Your task to perform on an android device: Find coffee shops on Maps Image 0: 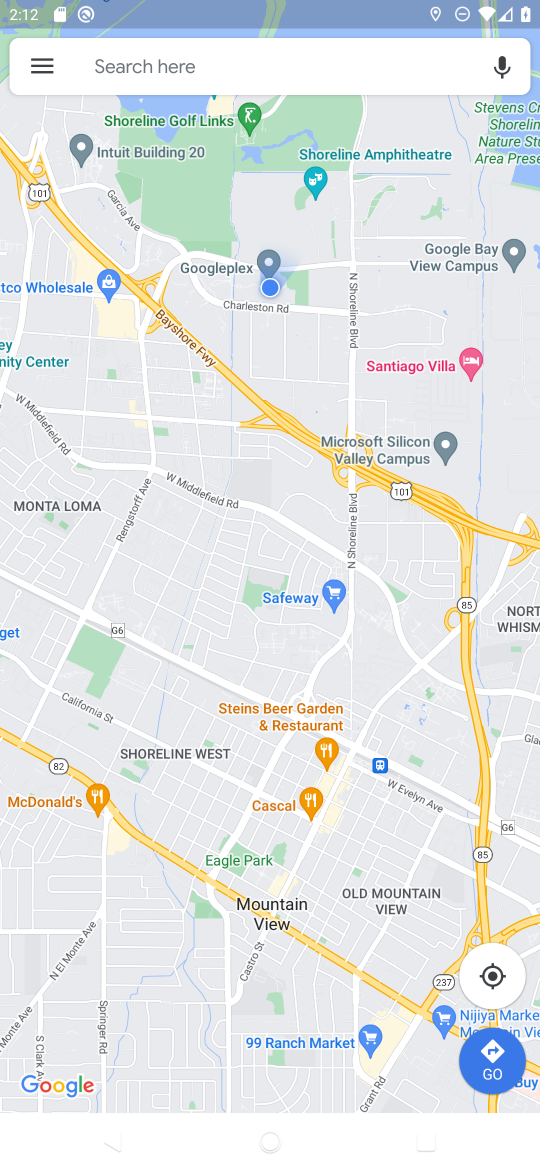
Step 0: press home button
Your task to perform on an android device: Find coffee shops on Maps Image 1: 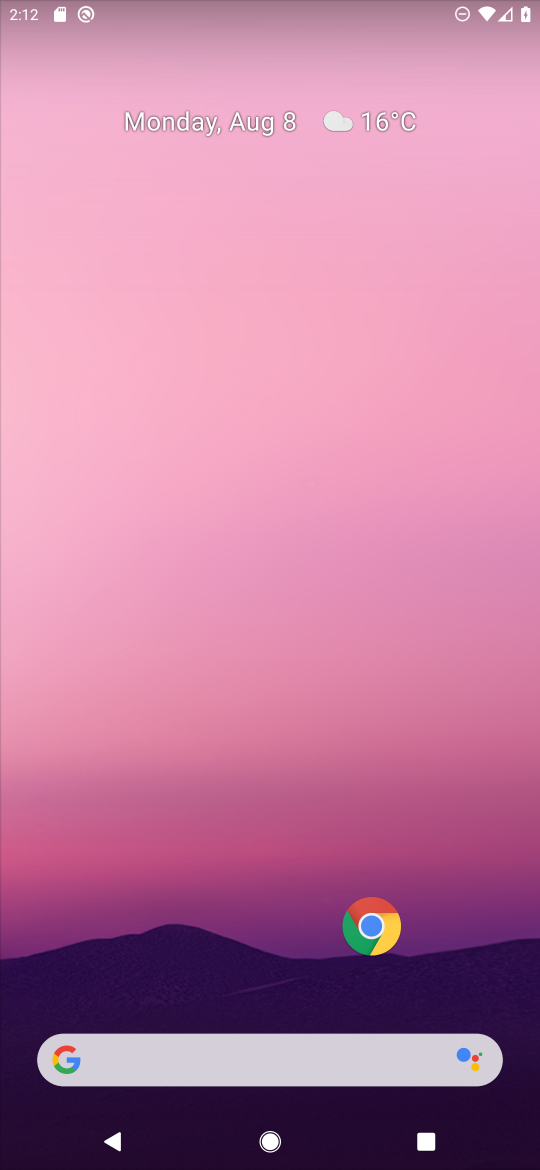
Step 1: drag from (133, 980) to (199, 292)
Your task to perform on an android device: Find coffee shops on Maps Image 2: 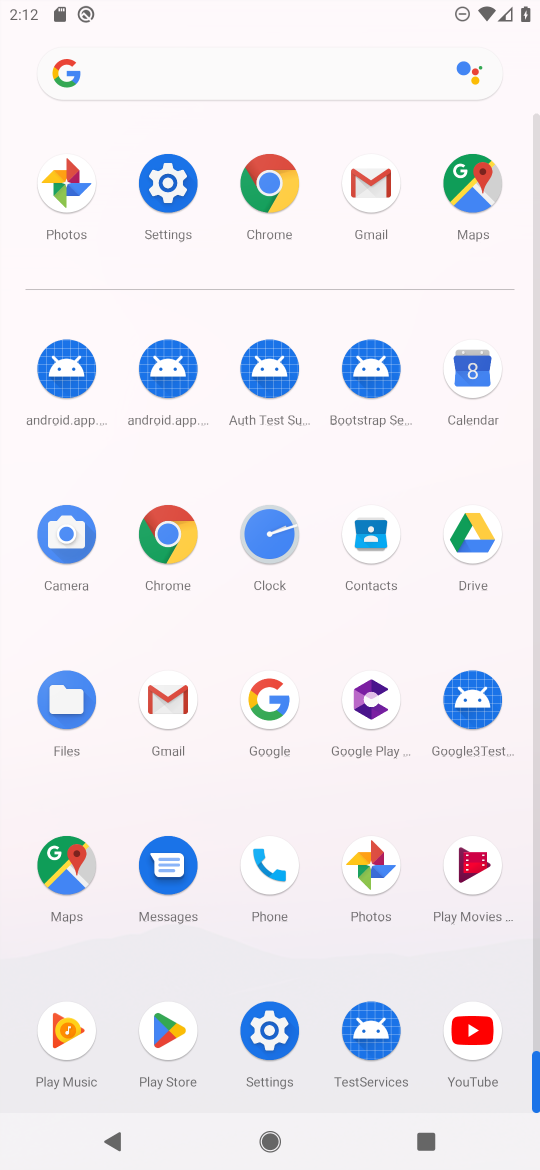
Step 2: click (365, 194)
Your task to perform on an android device: Find coffee shops on Maps Image 3: 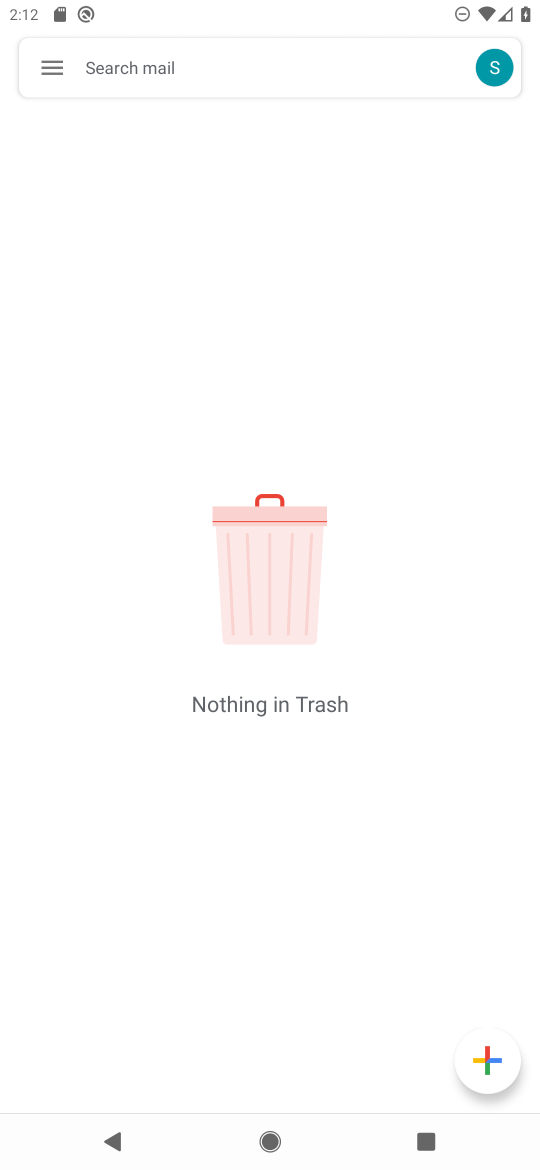
Step 3: press home button
Your task to perform on an android device: Find coffee shops on Maps Image 4: 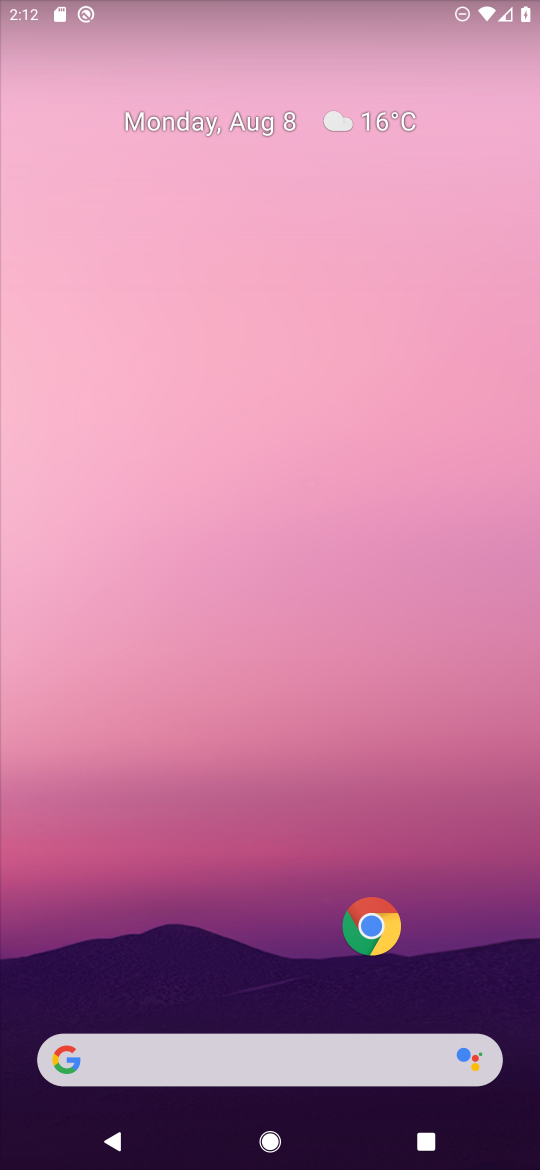
Step 4: drag from (175, 952) to (263, 131)
Your task to perform on an android device: Find coffee shops on Maps Image 5: 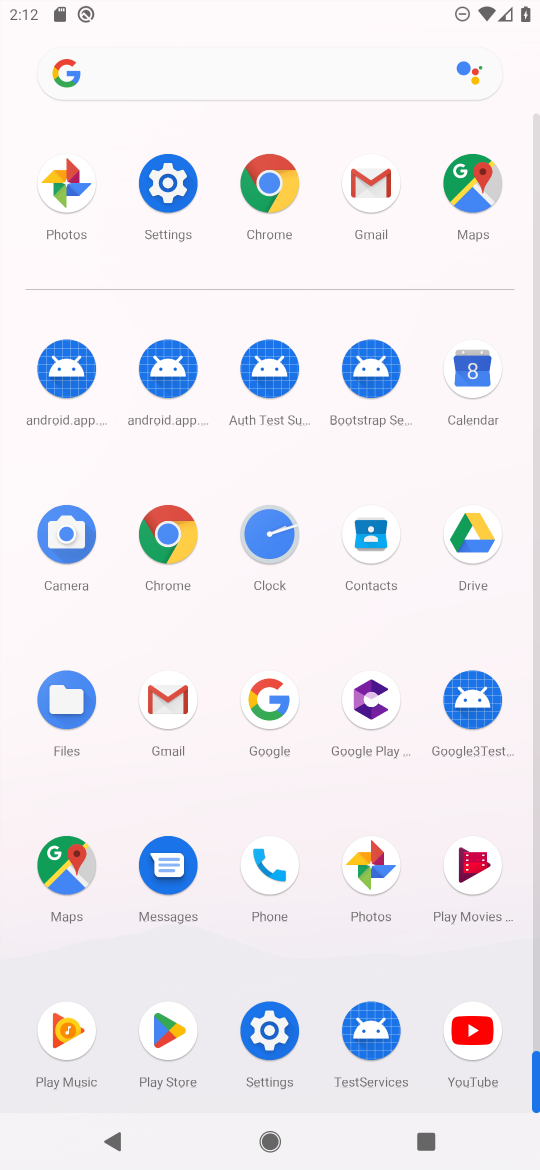
Step 5: click (460, 183)
Your task to perform on an android device: Find coffee shops on Maps Image 6: 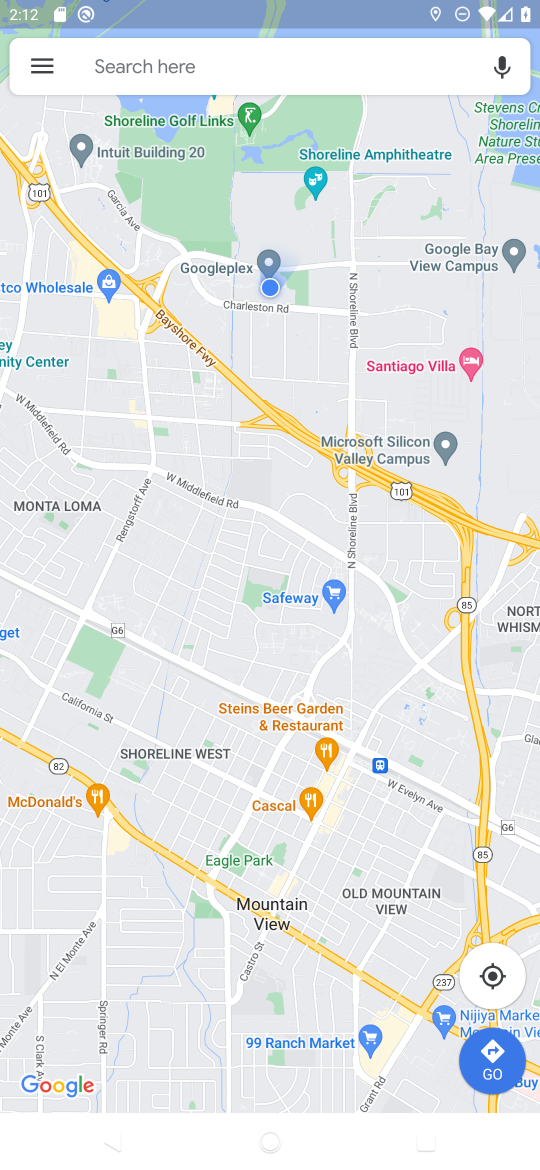
Step 6: click (152, 62)
Your task to perform on an android device: Find coffee shops on Maps Image 7: 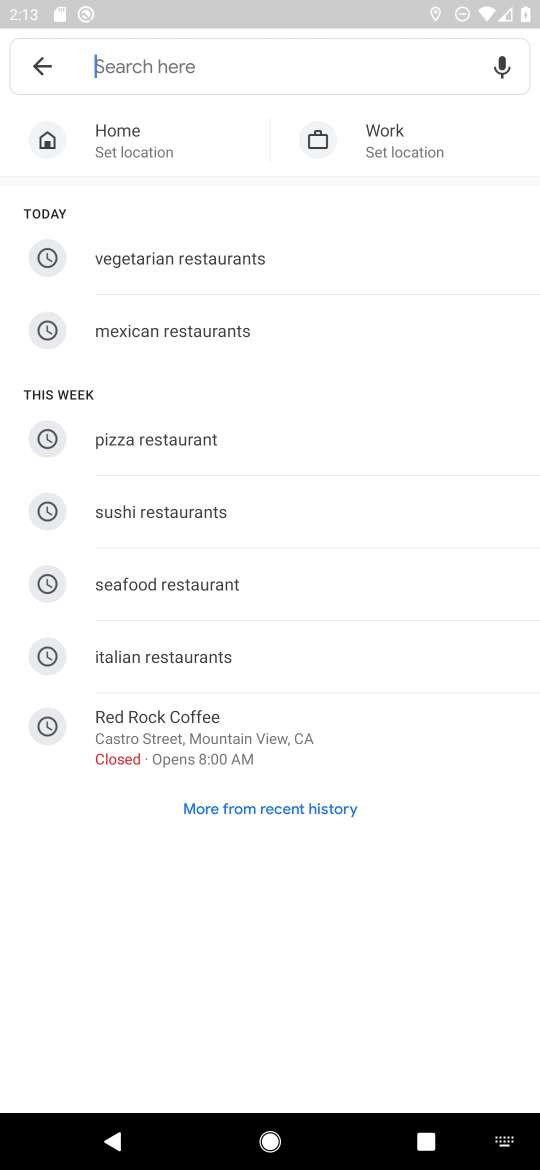
Step 7: click (262, 46)
Your task to perform on an android device: Find coffee shops on Maps Image 8: 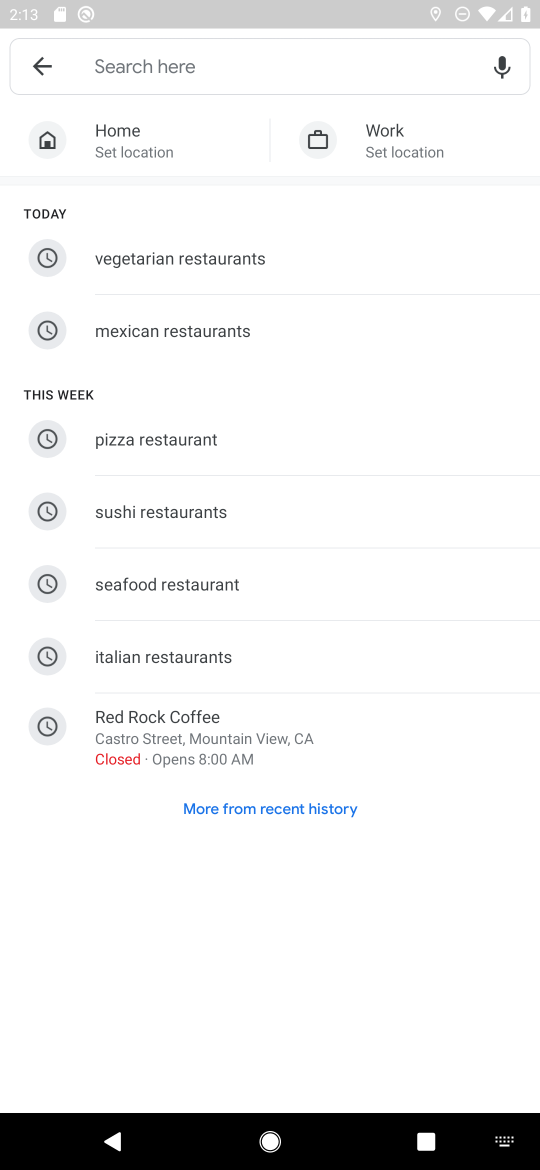
Step 8: type "coffee "
Your task to perform on an android device: Find coffee shops on Maps Image 9: 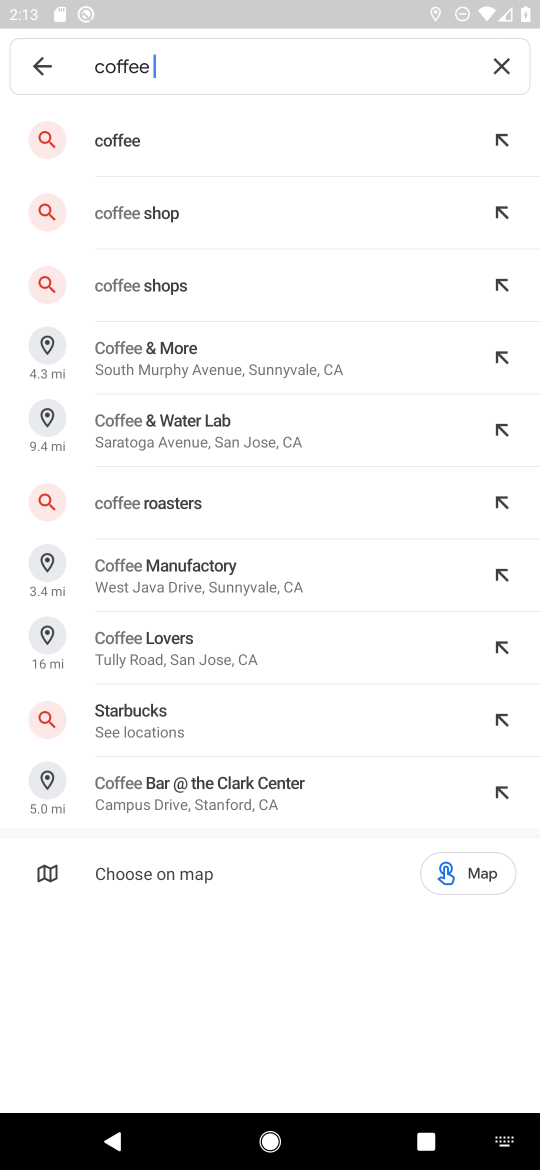
Step 9: click (184, 219)
Your task to perform on an android device: Find coffee shops on Maps Image 10: 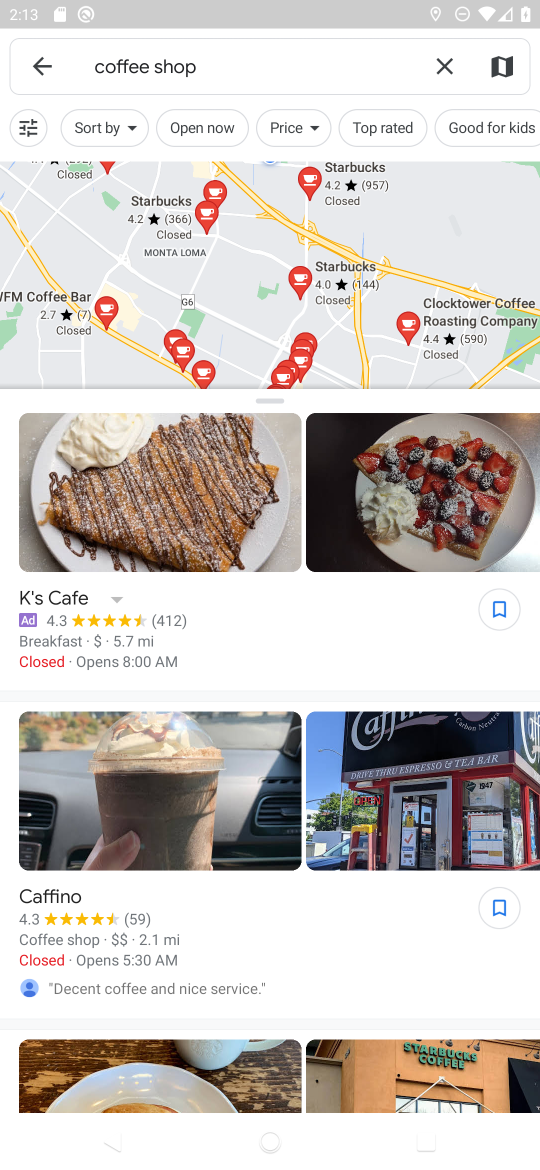
Step 10: task complete